Your task to perform on an android device: See recent photos Image 0: 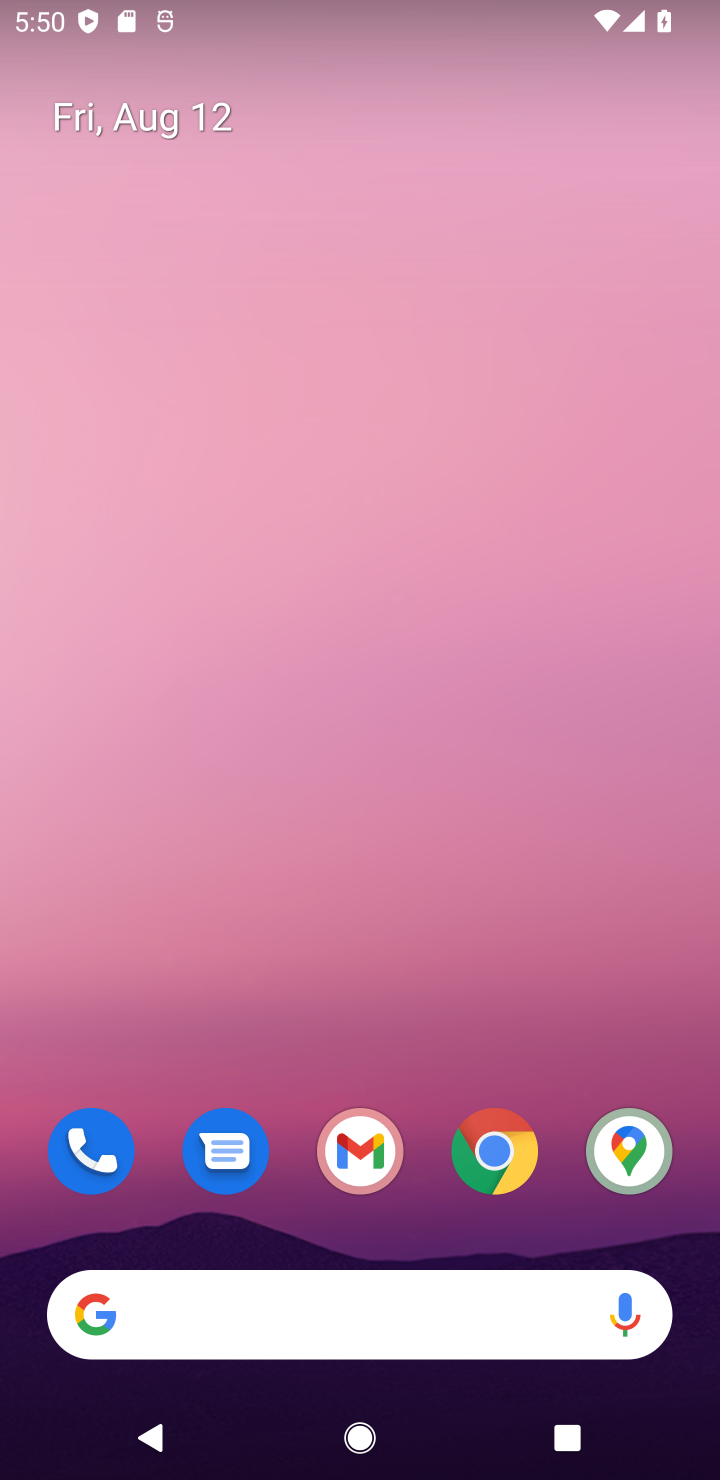
Step 0: drag from (410, 768) to (476, 78)
Your task to perform on an android device: See recent photos Image 1: 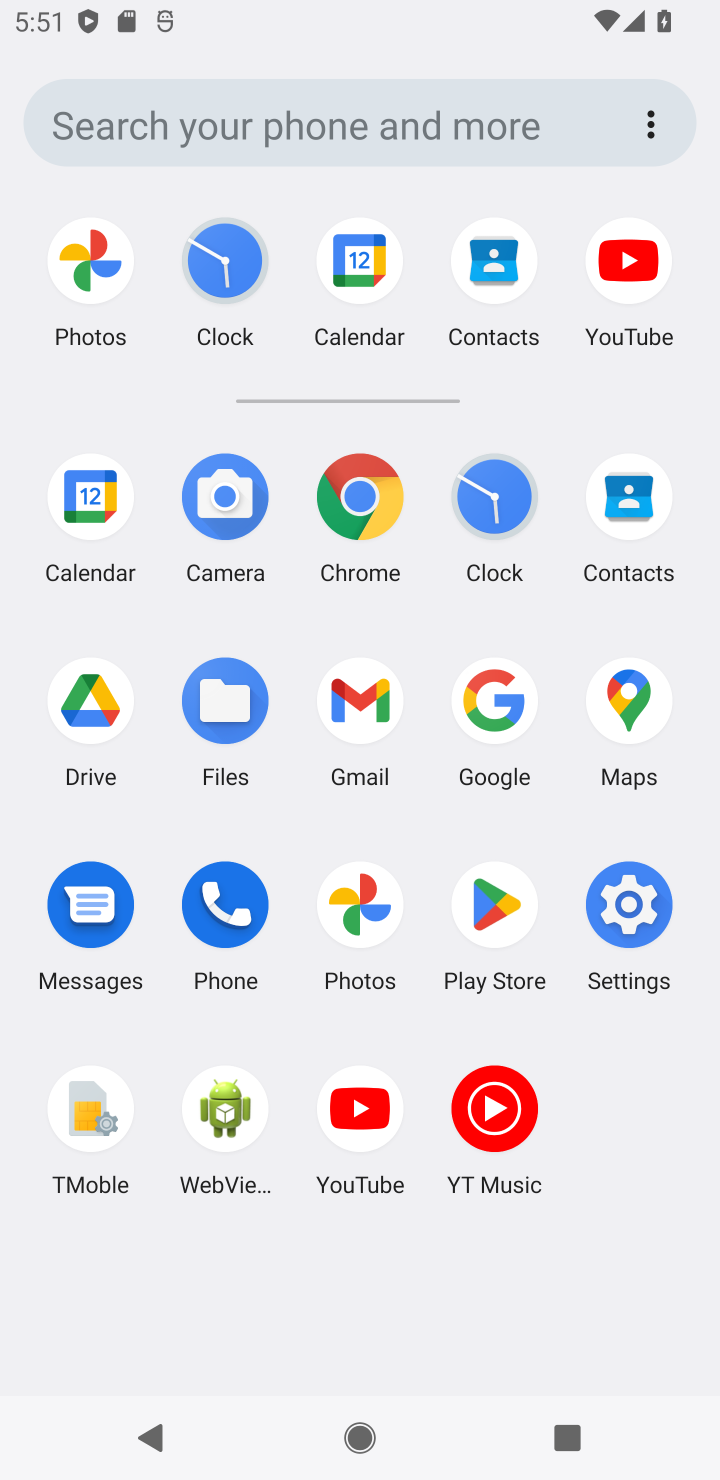
Step 1: click (395, 906)
Your task to perform on an android device: See recent photos Image 2: 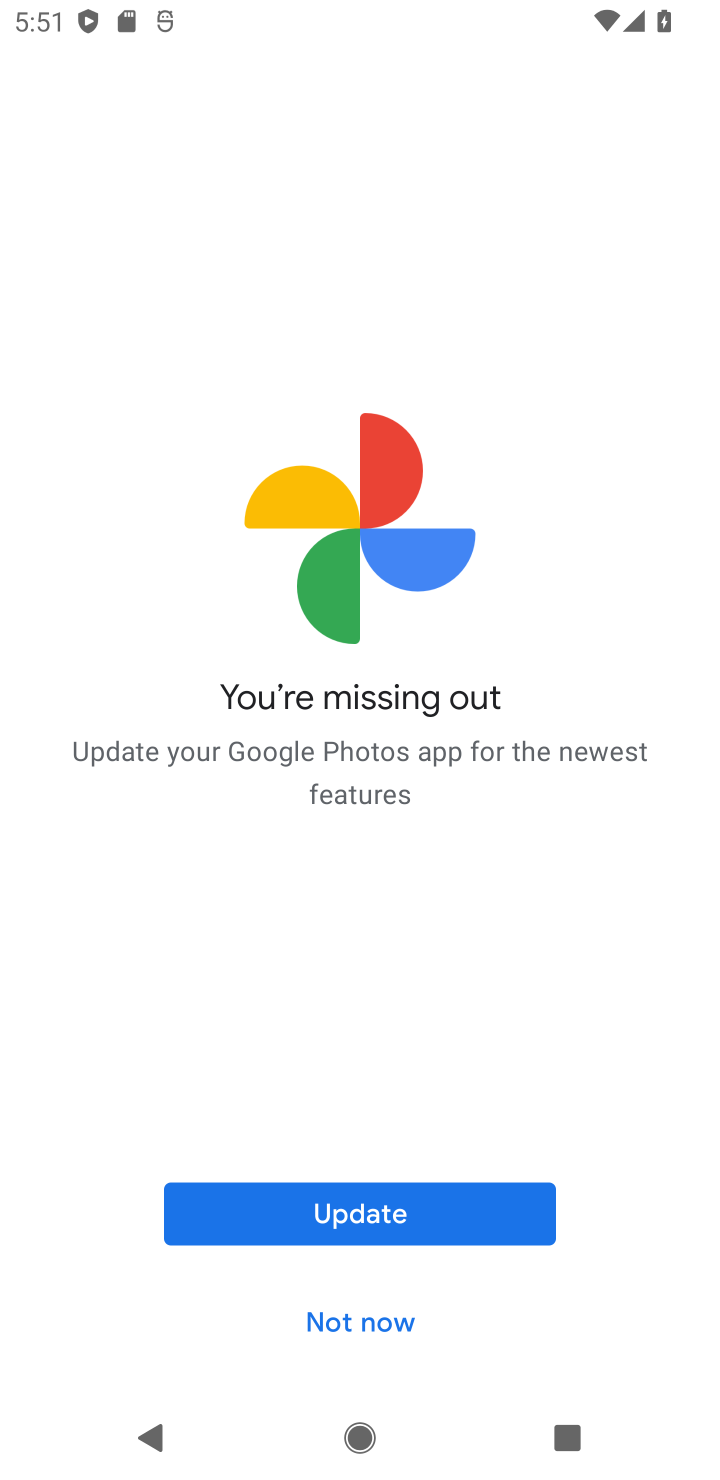
Step 2: click (354, 1309)
Your task to perform on an android device: See recent photos Image 3: 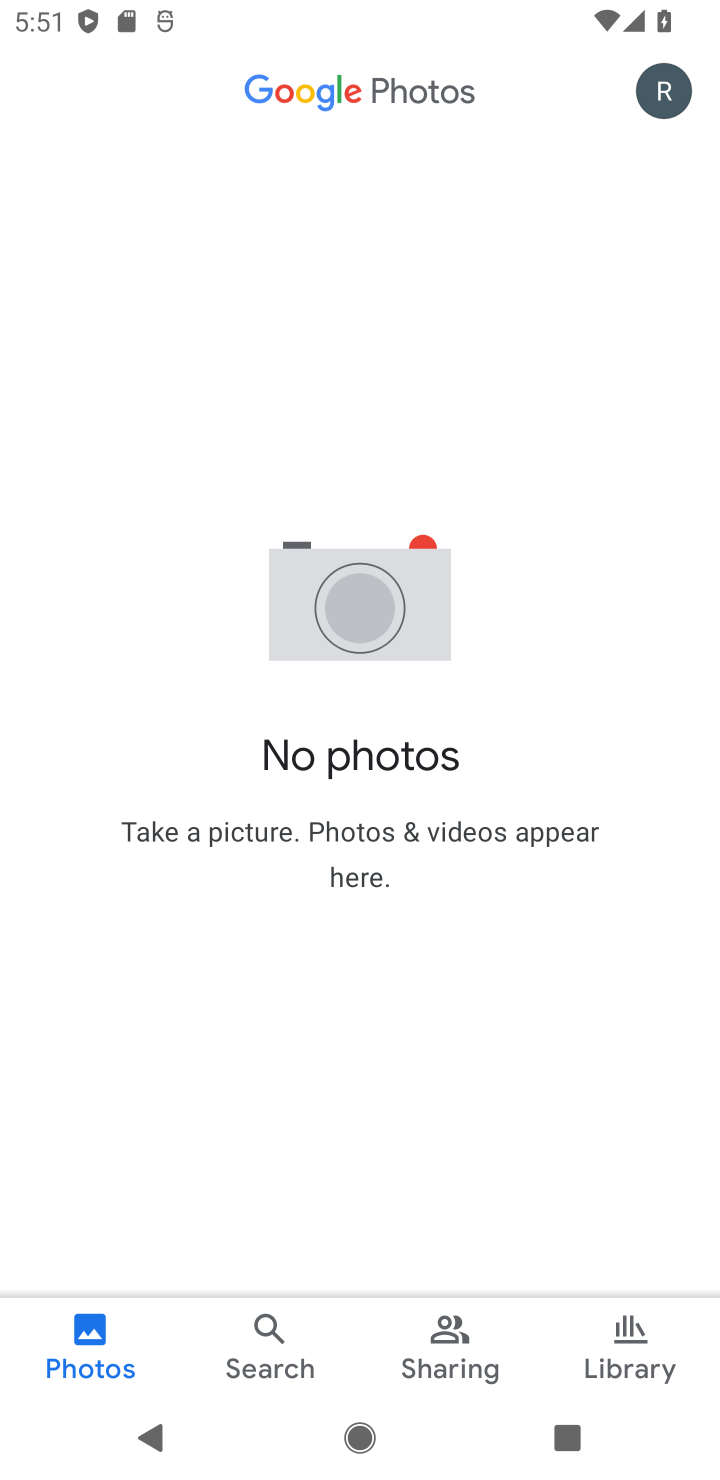
Step 3: task complete